Your task to perform on an android device: What is the recent news? Image 0: 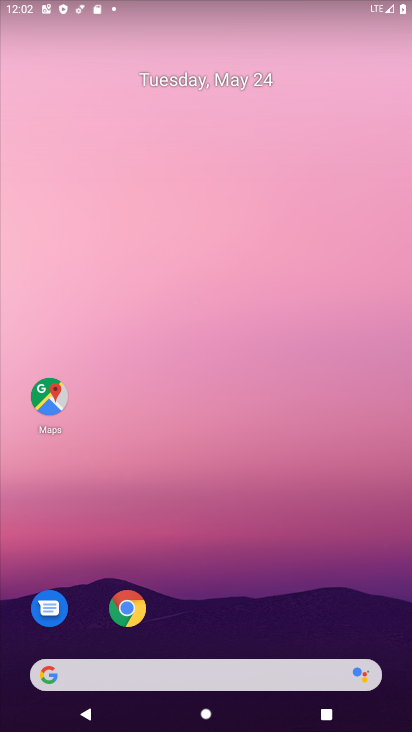
Step 0: press home button
Your task to perform on an android device: What is the recent news? Image 1: 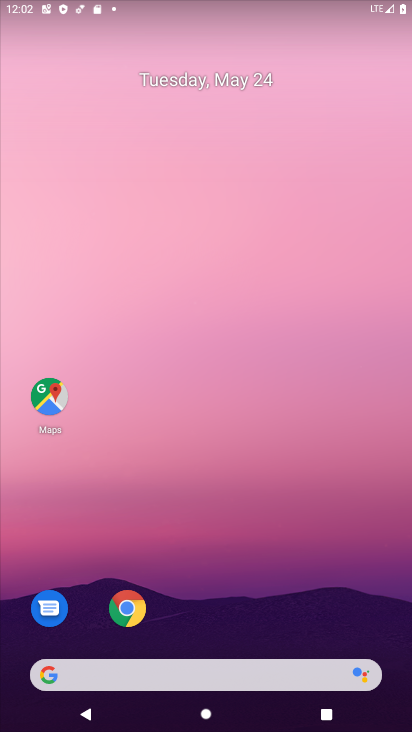
Step 1: drag from (7, 290) to (395, 307)
Your task to perform on an android device: What is the recent news? Image 2: 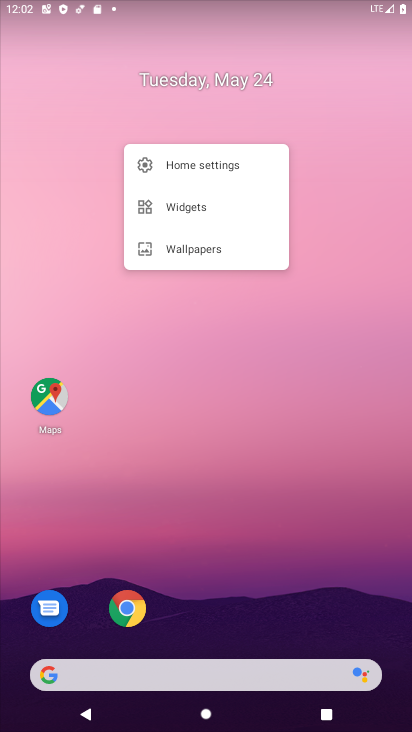
Step 2: click (191, 427)
Your task to perform on an android device: What is the recent news? Image 3: 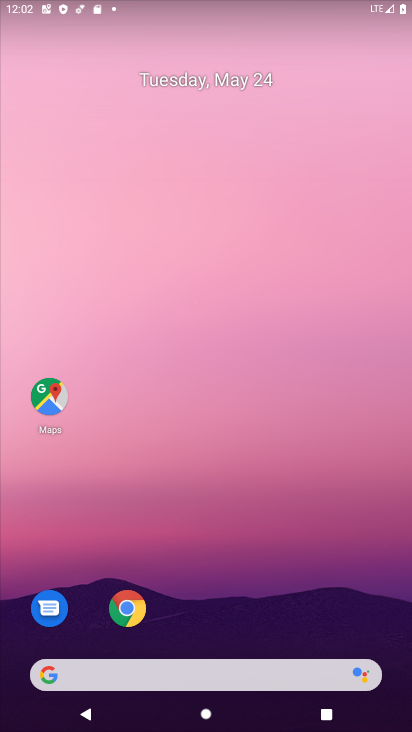
Step 3: task complete